Your task to perform on an android device: Search for seafood restaurants on Google Maps Image 0: 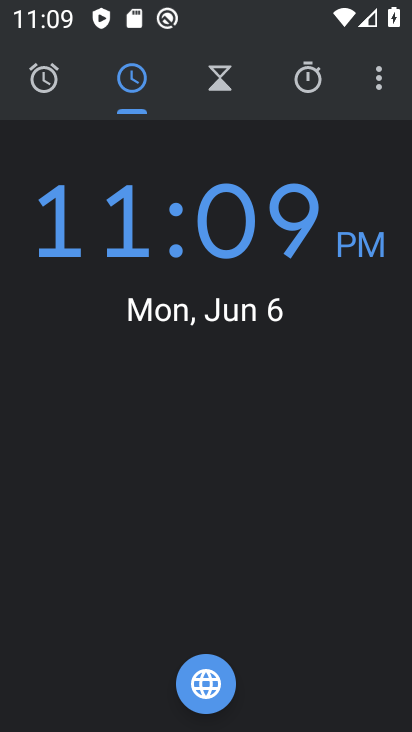
Step 0: press home button
Your task to perform on an android device: Search for seafood restaurants on Google Maps Image 1: 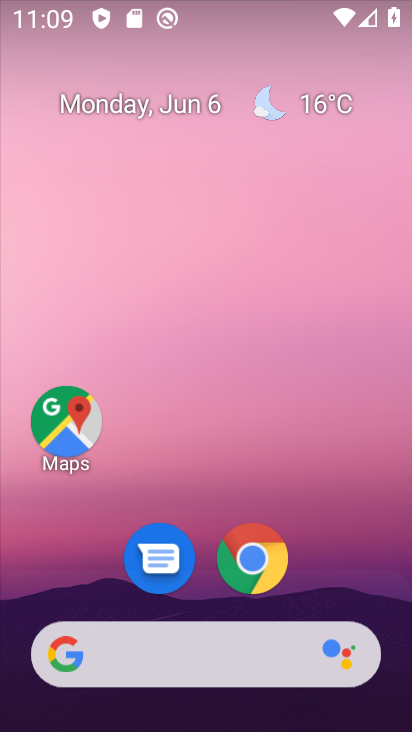
Step 1: click (75, 428)
Your task to perform on an android device: Search for seafood restaurants on Google Maps Image 2: 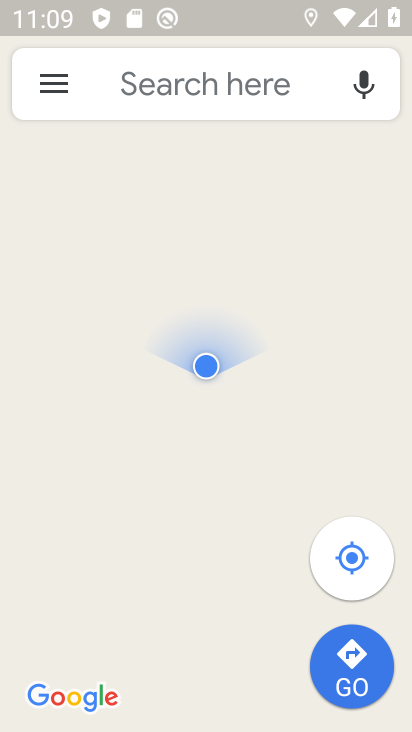
Step 2: click (163, 90)
Your task to perform on an android device: Search for seafood restaurants on Google Maps Image 3: 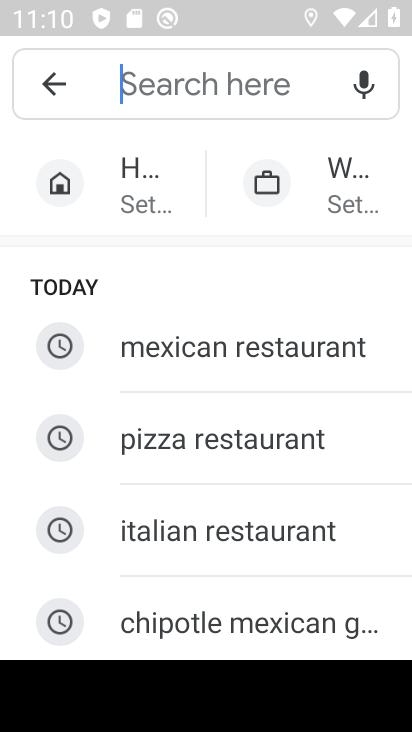
Step 3: type "seafood restaurants"
Your task to perform on an android device: Search for seafood restaurants on Google Maps Image 4: 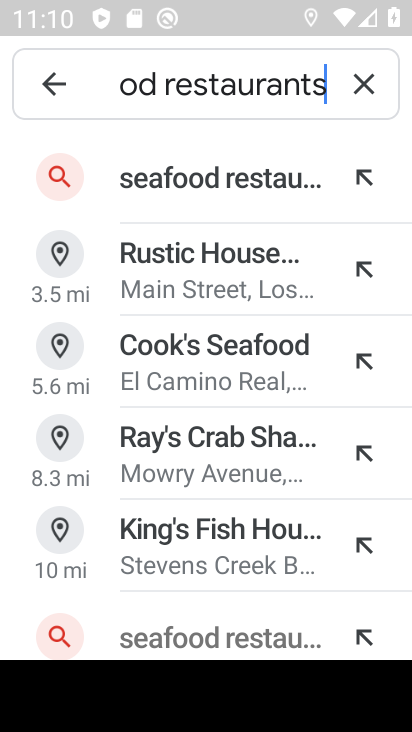
Step 4: click (192, 177)
Your task to perform on an android device: Search for seafood restaurants on Google Maps Image 5: 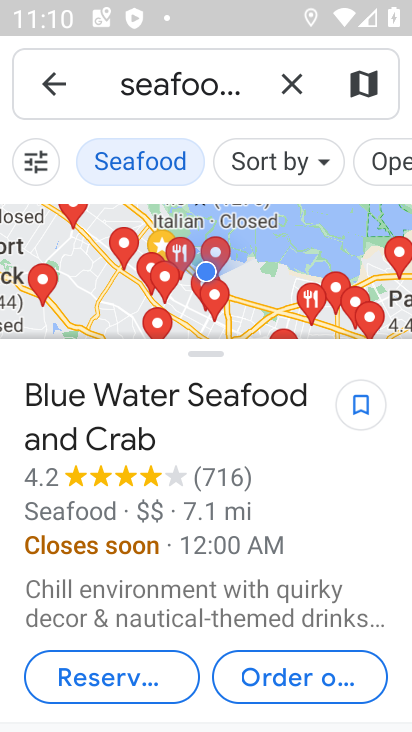
Step 5: task complete